Your task to perform on an android device: Go to accessibility settings Image 0: 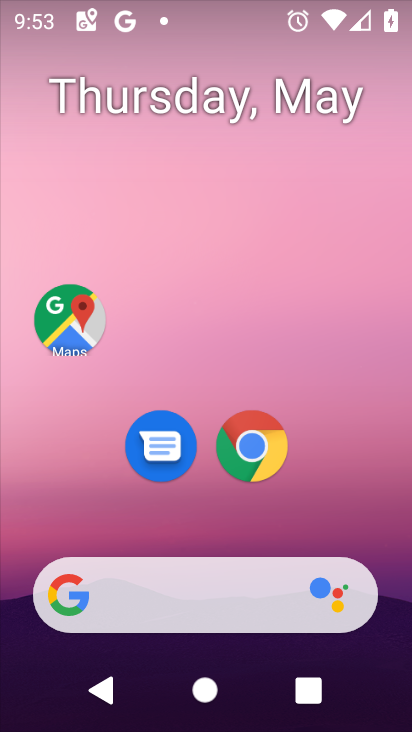
Step 0: drag from (338, 512) to (382, 109)
Your task to perform on an android device: Go to accessibility settings Image 1: 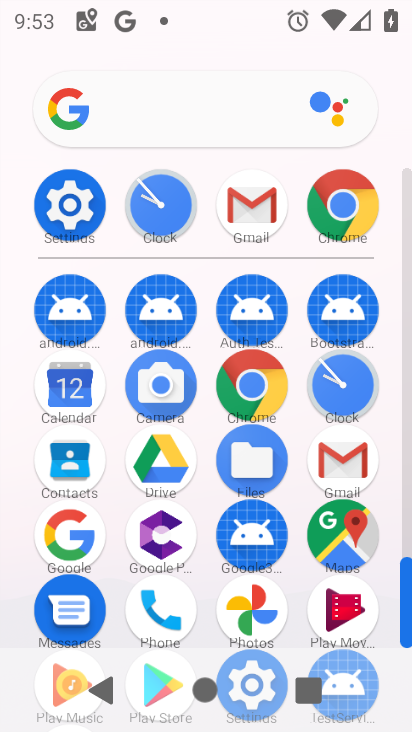
Step 1: drag from (294, 557) to (285, 288)
Your task to perform on an android device: Go to accessibility settings Image 2: 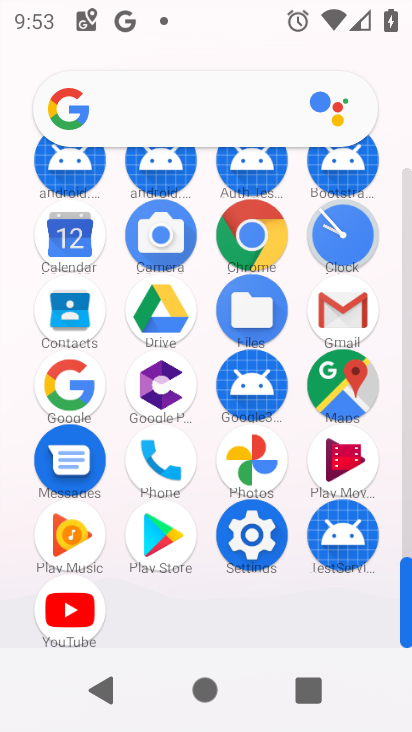
Step 2: click (234, 553)
Your task to perform on an android device: Go to accessibility settings Image 3: 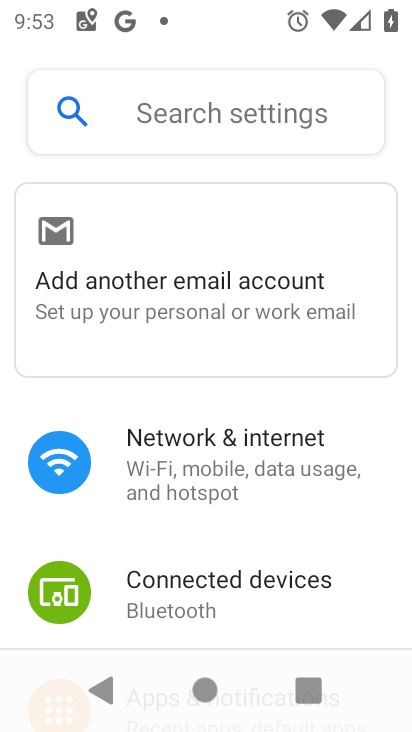
Step 3: drag from (308, 519) to (306, 194)
Your task to perform on an android device: Go to accessibility settings Image 4: 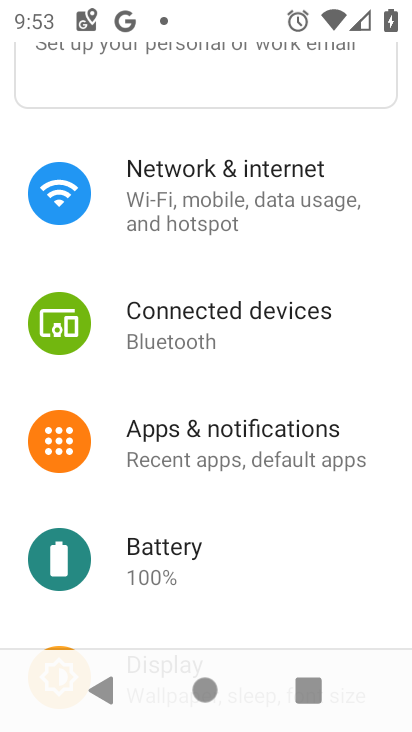
Step 4: drag from (280, 535) to (289, 221)
Your task to perform on an android device: Go to accessibility settings Image 5: 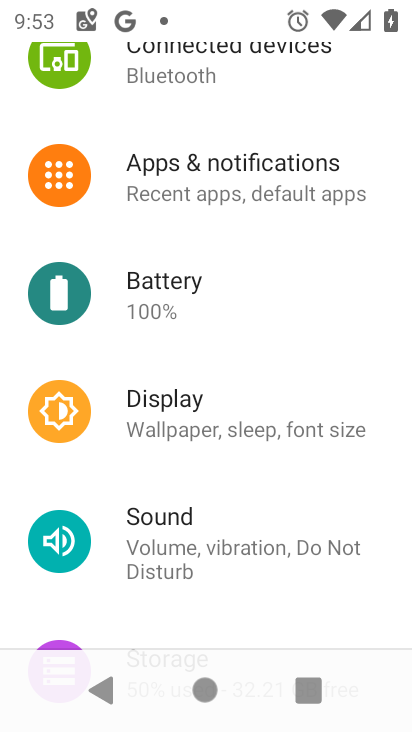
Step 5: drag from (294, 593) to (285, 270)
Your task to perform on an android device: Go to accessibility settings Image 6: 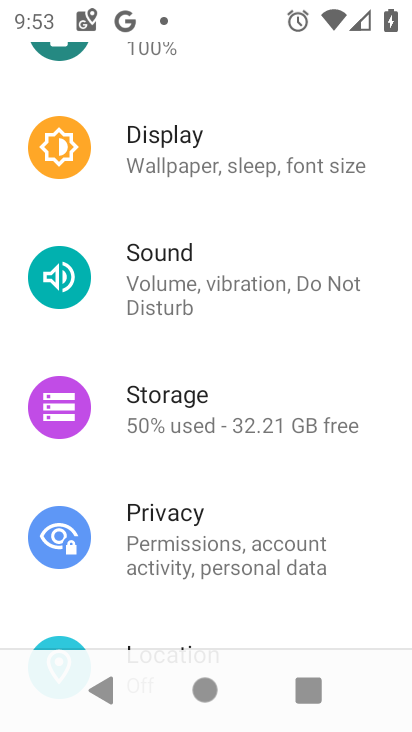
Step 6: drag from (294, 599) to (315, 246)
Your task to perform on an android device: Go to accessibility settings Image 7: 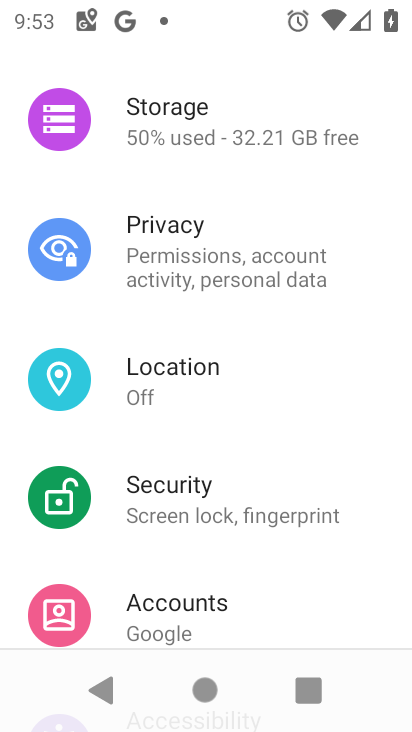
Step 7: drag from (291, 498) to (332, 151)
Your task to perform on an android device: Go to accessibility settings Image 8: 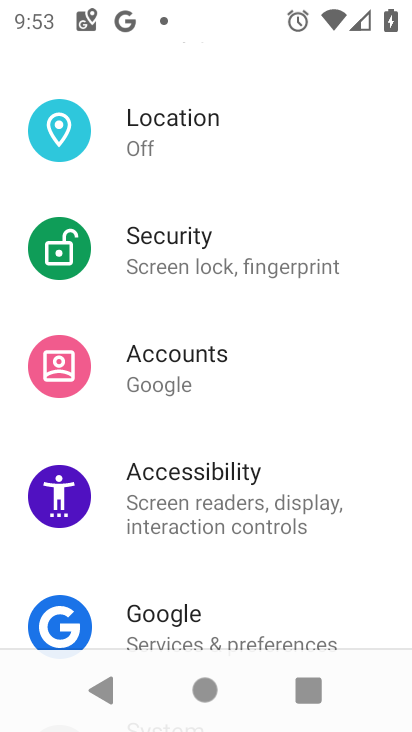
Step 8: click (239, 478)
Your task to perform on an android device: Go to accessibility settings Image 9: 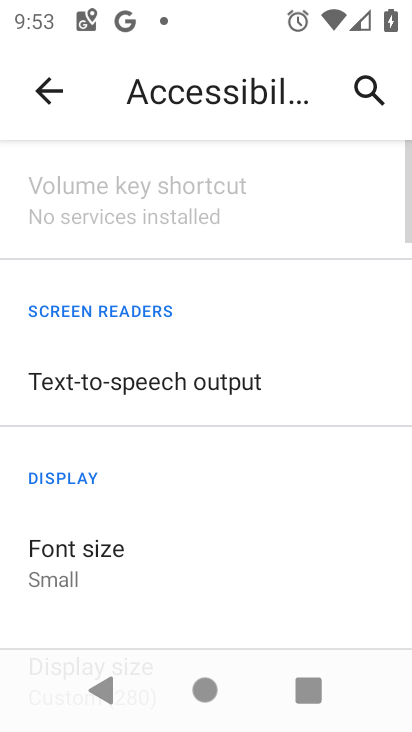
Step 9: task complete